Your task to perform on an android device: Open Amazon Image 0: 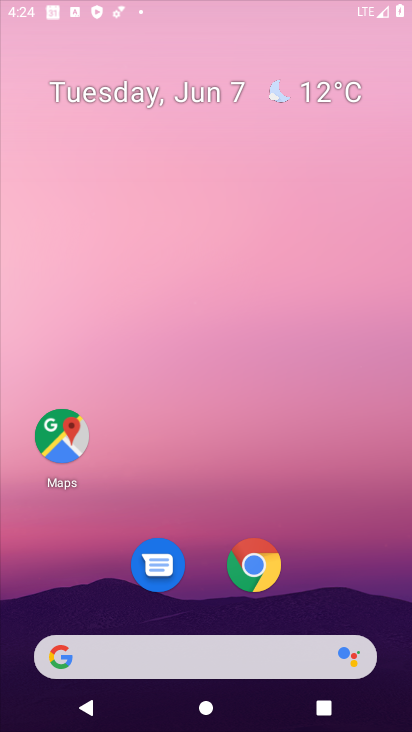
Step 0: drag from (322, 642) to (295, 1)
Your task to perform on an android device: Open Amazon Image 1: 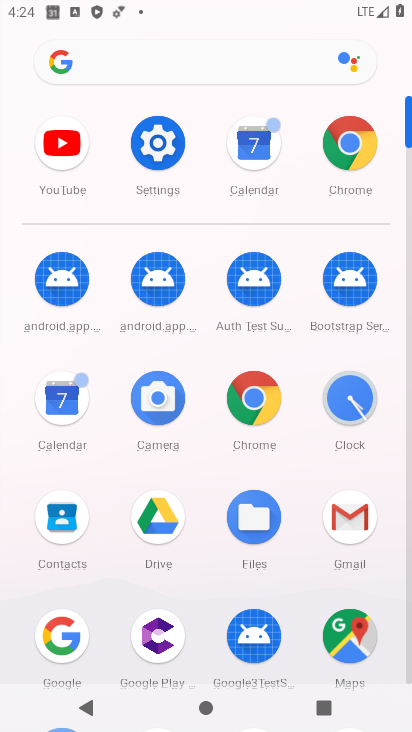
Step 1: click (251, 395)
Your task to perform on an android device: Open Amazon Image 2: 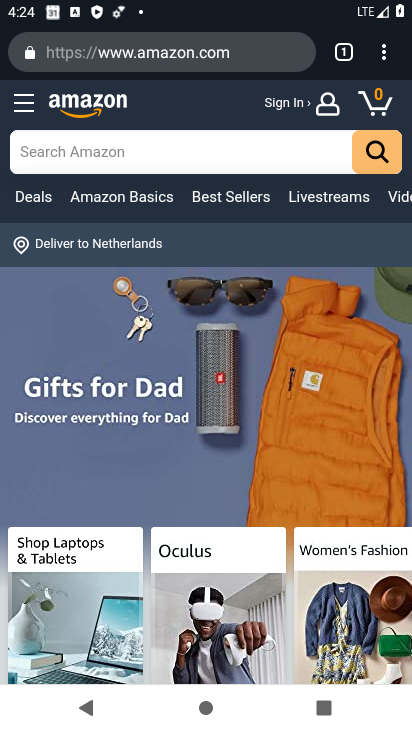
Step 2: task complete